Your task to perform on an android device: Play the last video I watched on Youtube Image 0: 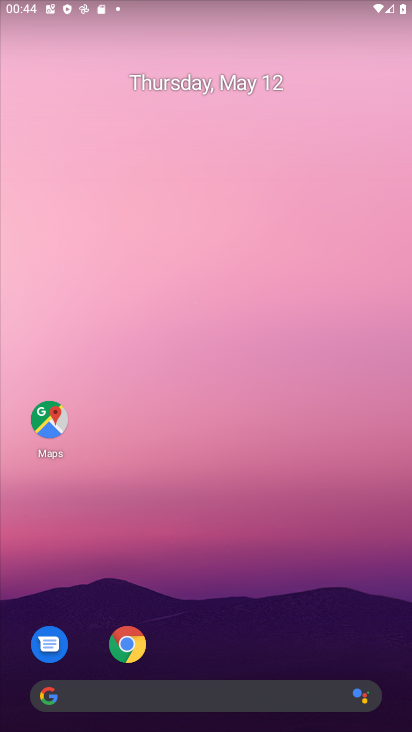
Step 0: drag from (276, 654) to (297, 180)
Your task to perform on an android device: Play the last video I watched on Youtube Image 1: 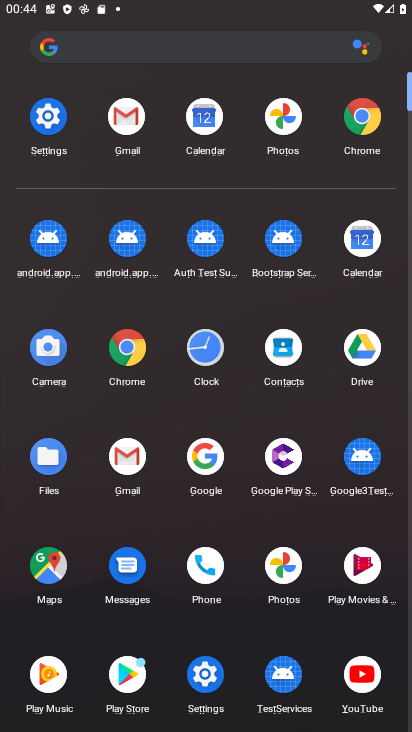
Step 1: click (360, 684)
Your task to perform on an android device: Play the last video I watched on Youtube Image 2: 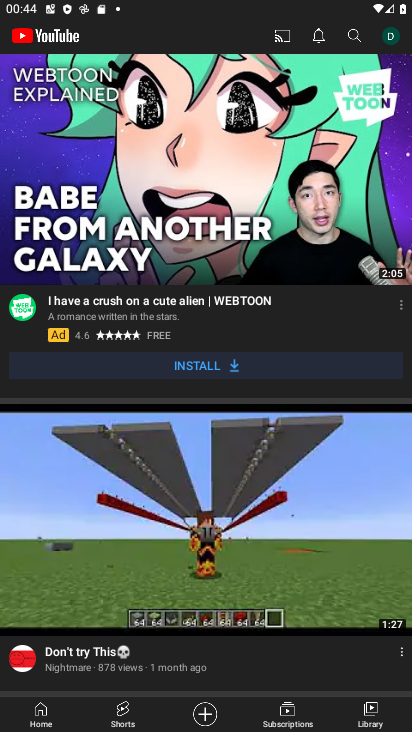
Step 2: click (378, 706)
Your task to perform on an android device: Play the last video I watched on Youtube Image 3: 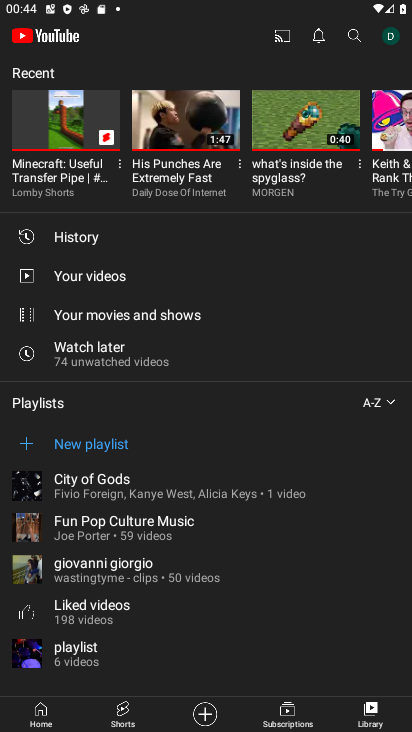
Step 3: click (71, 138)
Your task to perform on an android device: Play the last video I watched on Youtube Image 4: 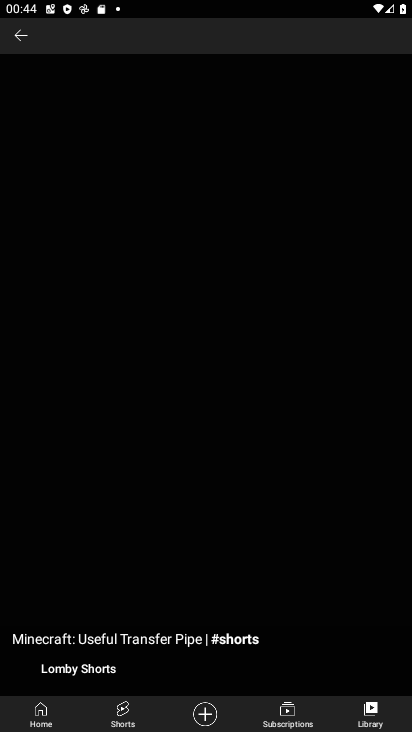
Step 4: task complete